Your task to perform on an android device: set the timer Image 0: 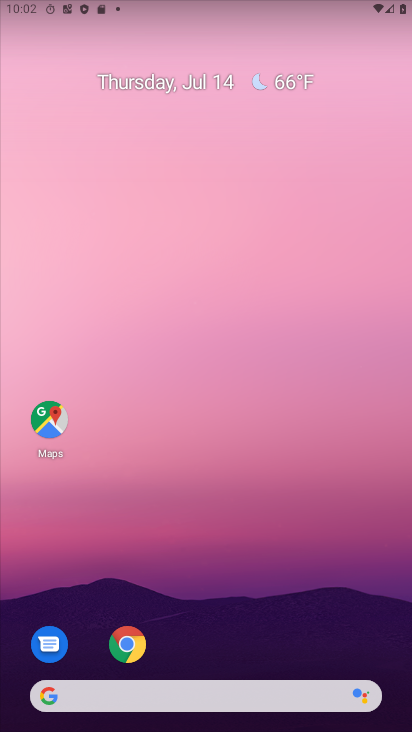
Step 0: drag from (275, 670) to (277, 361)
Your task to perform on an android device: set the timer Image 1: 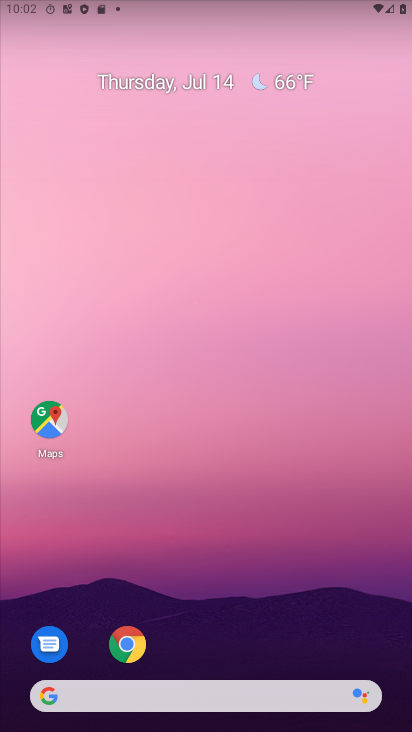
Step 1: drag from (184, 593) to (94, 65)
Your task to perform on an android device: set the timer Image 2: 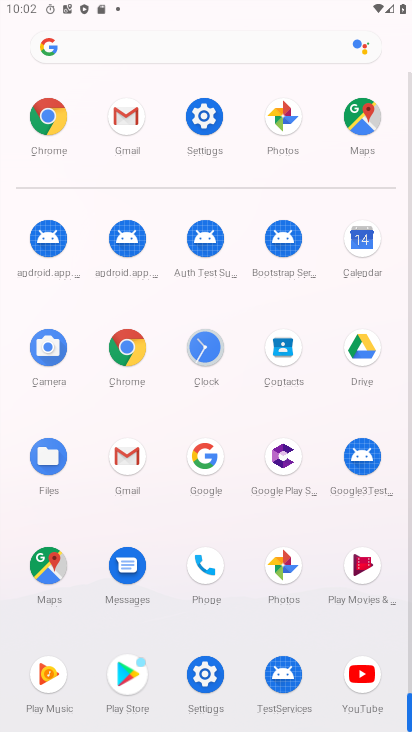
Step 2: click (195, 114)
Your task to perform on an android device: set the timer Image 3: 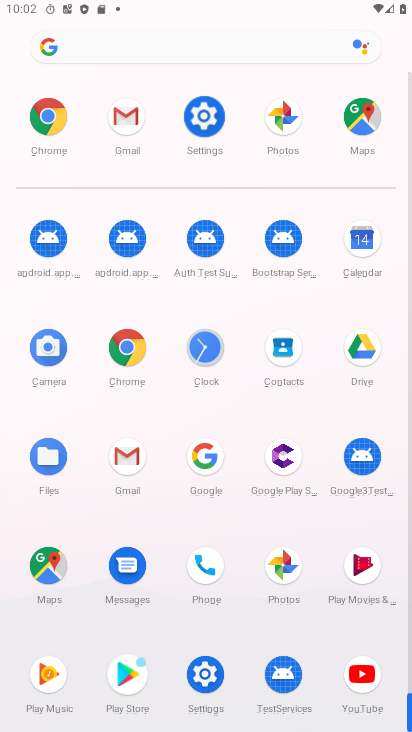
Step 3: click (203, 118)
Your task to perform on an android device: set the timer Image 4: 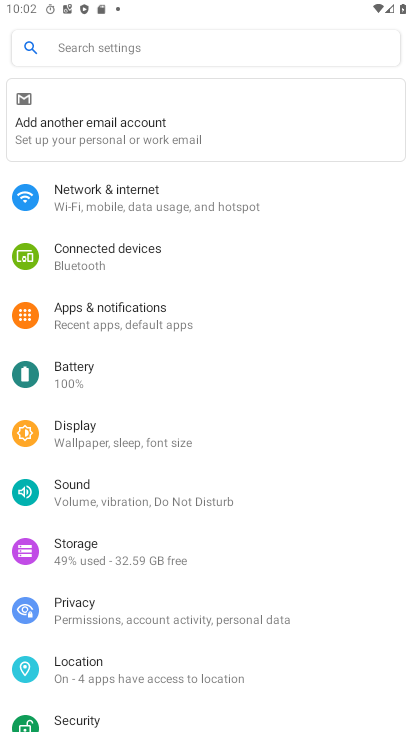
Step 4: press back button
Your task to perform on an android device: set the timer Image 5: 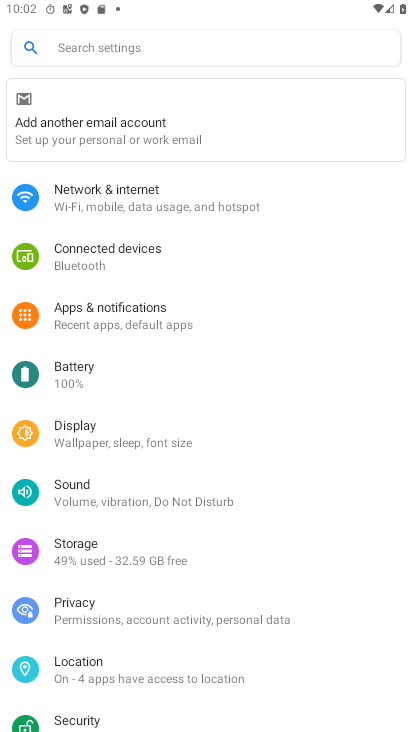
Step 5: press back button
Your task to perform on an android device: set the timer Image 6: 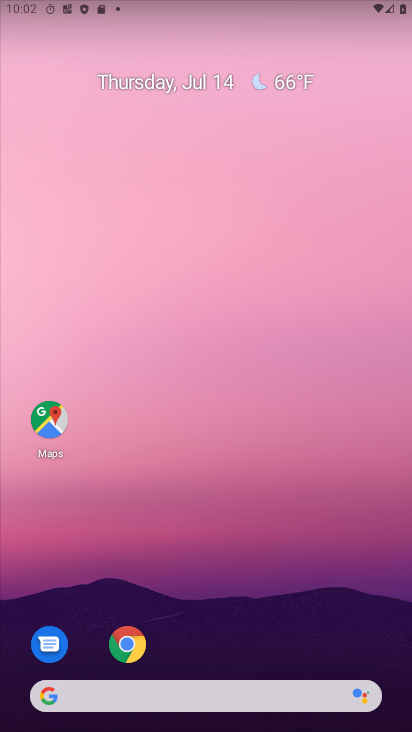
Step 6: drag from (266, 675) to (167, 60)
Your task to perform on an android device: set the timer Image 7: 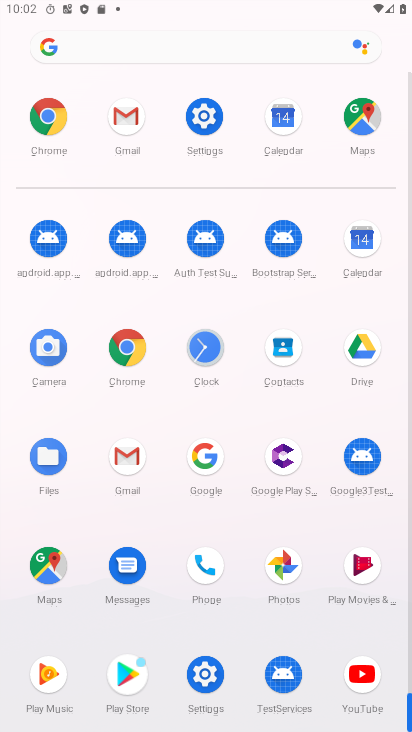
Step 7: click (196, 117)
Your task to perform on an android device: set the timer Image 8: 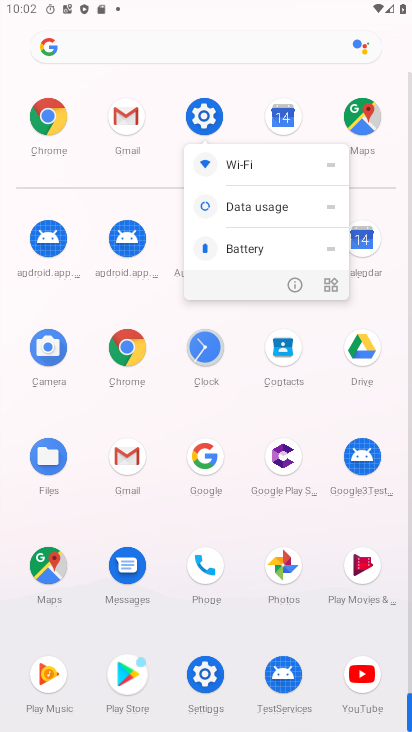
Step 8: click (177, 68)
Your task to perform on an android device: set the timer Image 9: 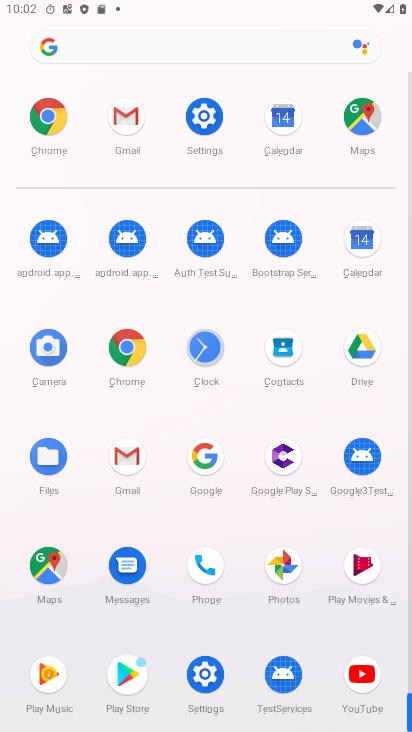
Step 9: click (205, 352)
Your task to perform on an android device: set the timer Image 10: 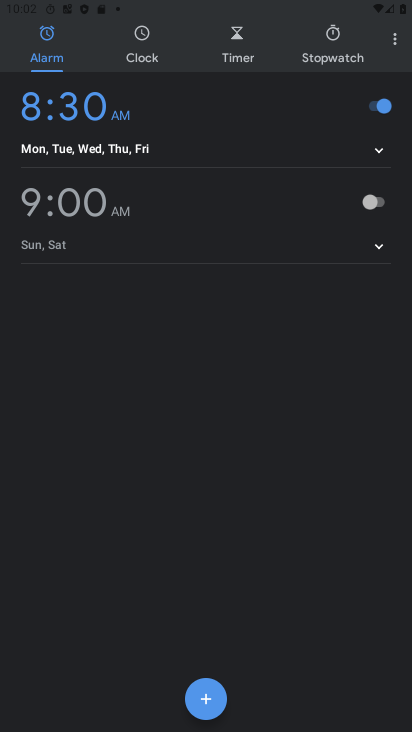
Step 10: click (246, 51)
Your task to perform on an android device: set the timer Image 11: 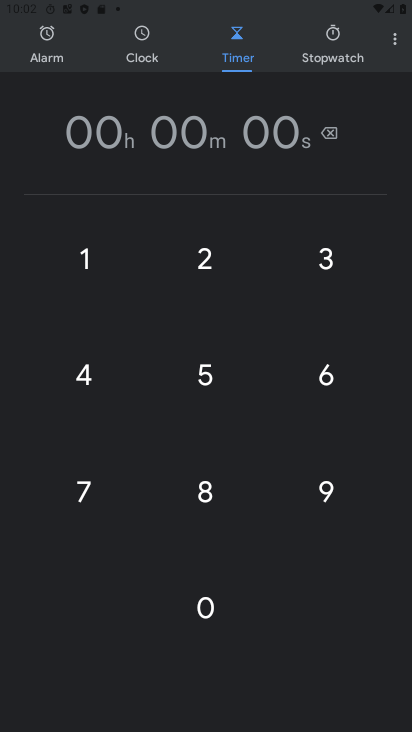
Step 11: click (199, 383)
Your task to perform on an android device: set the timer Image 12: 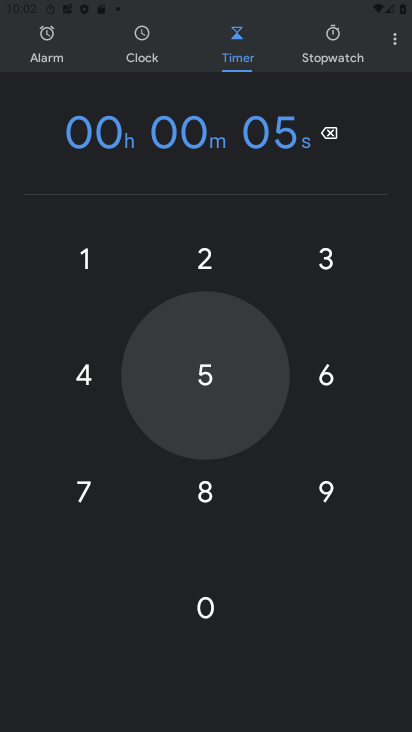
Step 12: click (207, 398)
Your task to perform on an android device: set the timer Image 13: 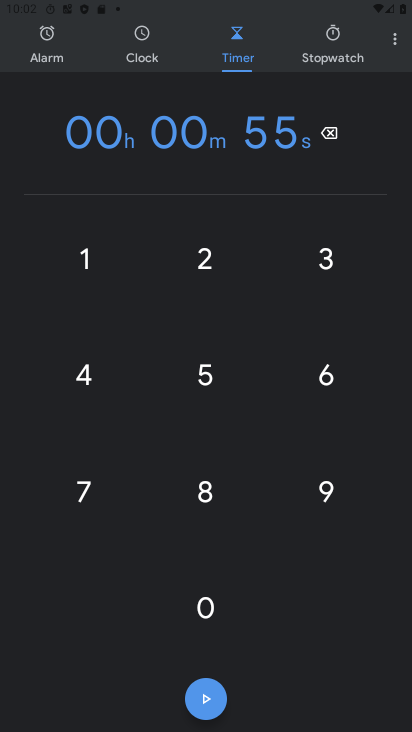
Step 13: click (220, 696)
Your task to perform on an android device: set the timer Image 14: 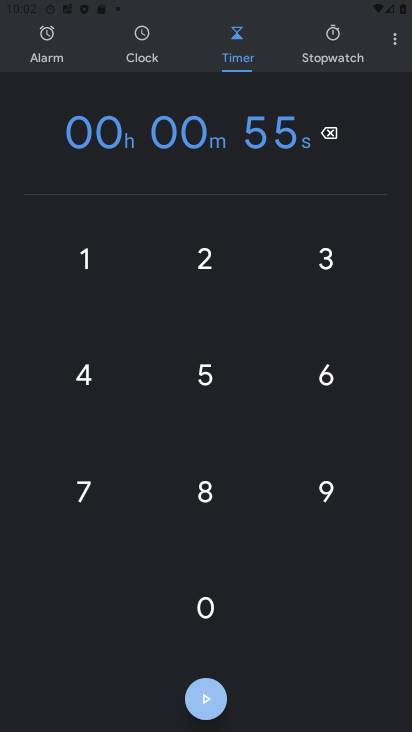
Step 14: click (219, 695)
Your task to perform on an android device: set the timer Image 15: 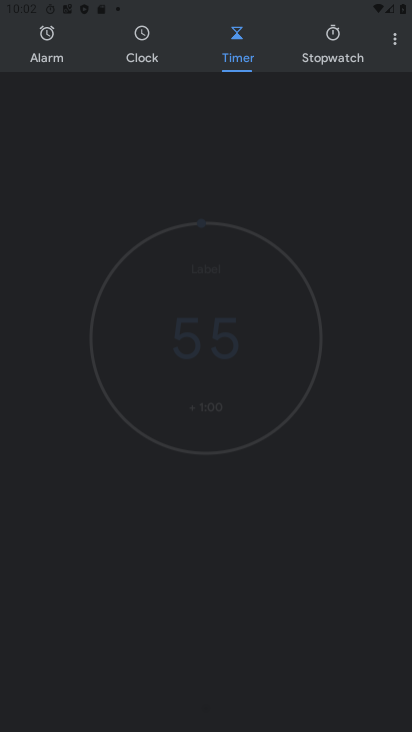
Step 15: click (212, 691)
Your task to perform on an android device: set the timer Image 16: 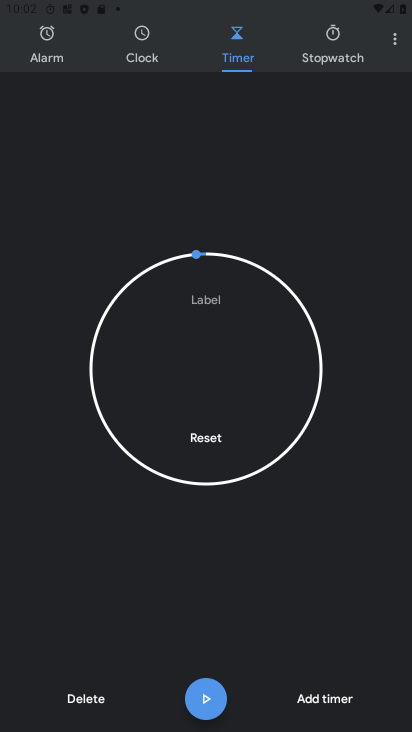
Step 16: click (208, 690)
Your task to perform on an android device: set the timer Image 17: 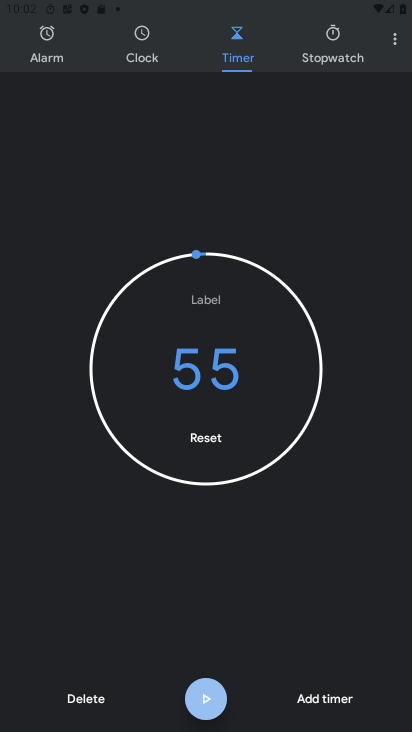
Step 17: click (210, 687)
Your task to perform on an android device: set the timer Image 18: 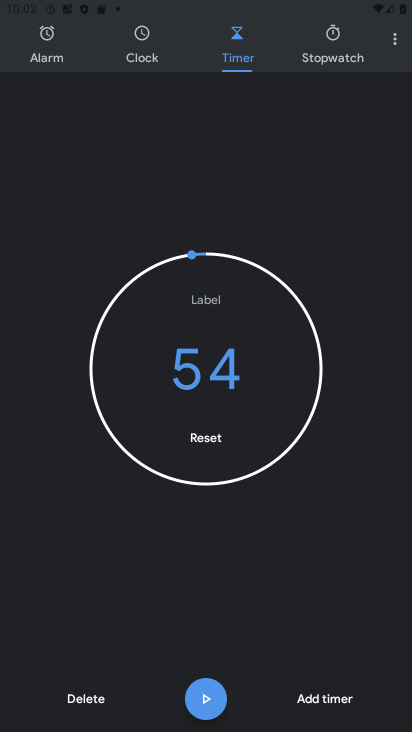
Step 18: click (200, 693)
Your task to perform on an android device: set the timer Image 19: 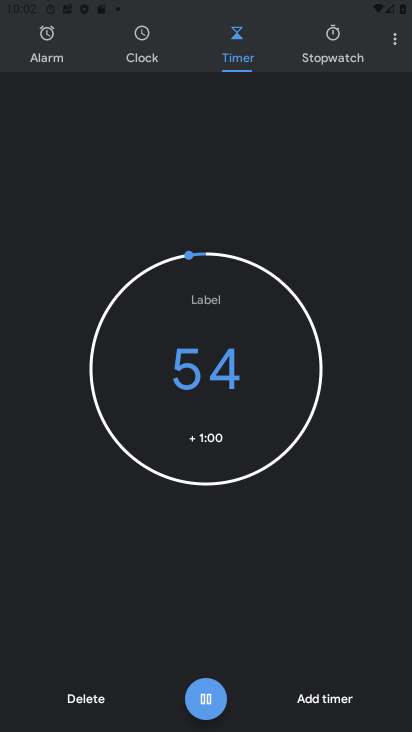
Step 19: click (212, 700)
Your task to perform on an android device: set the timer Image 20: 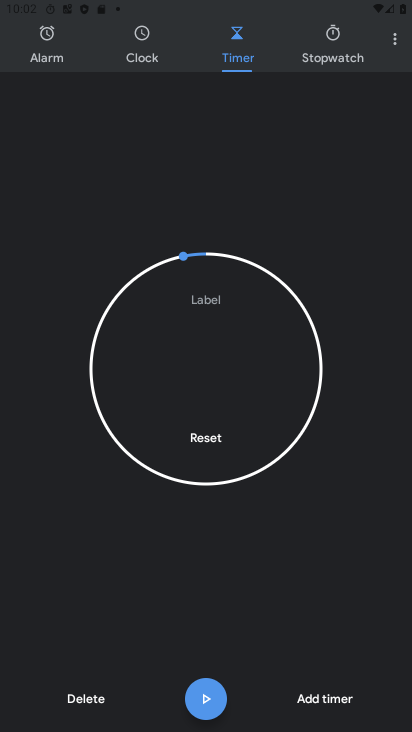
Step 20: task complete